Your task to perform on an android device: check battery use Image 0: 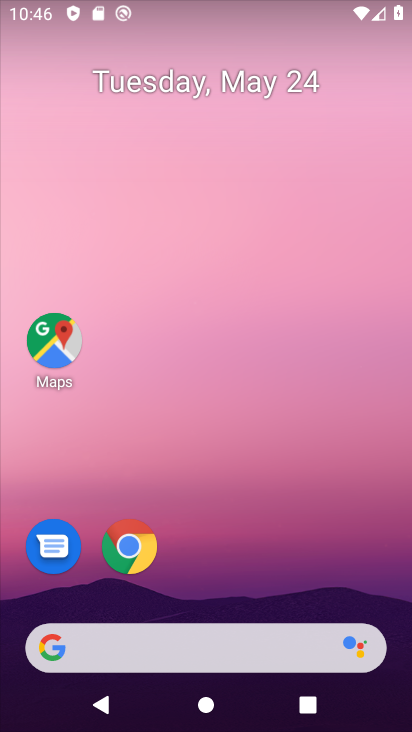
Step 0: click (114, 548)
Your task to perform on an android device: check battery use Image 1: 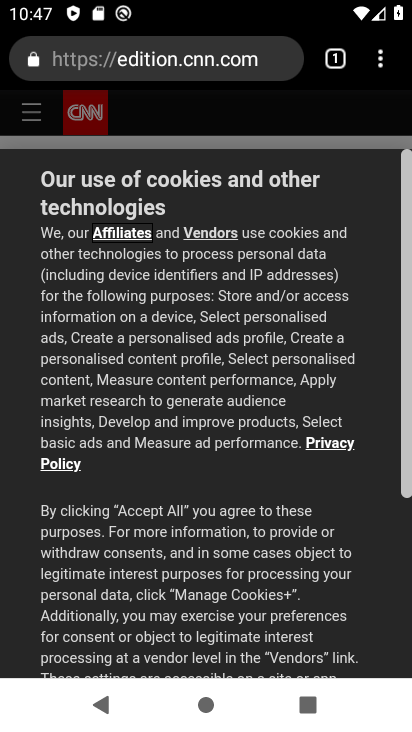
Step 1: press home button
Your task to perform on an android device: check battery use Image 2: 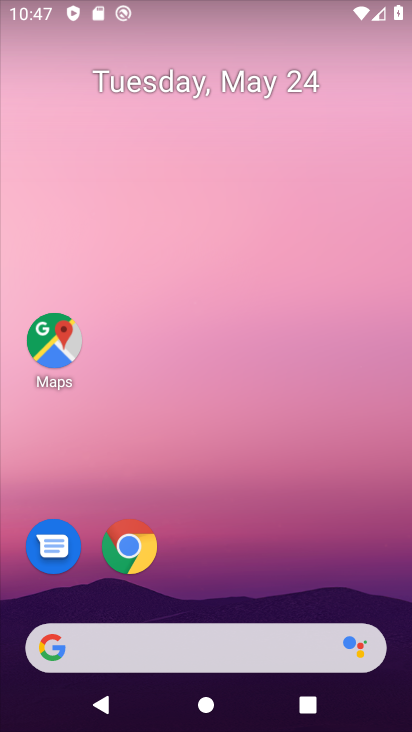
Step 2: drag from (215, 590) to (247, 51)
Your task to perform on an android device: check battery use Image 3: 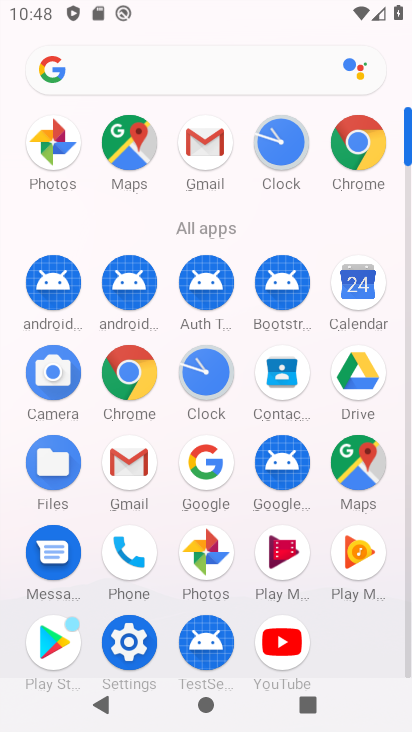
Step 3: click (144, 641)
Your task to perform on an android device: check battery use Image 4: 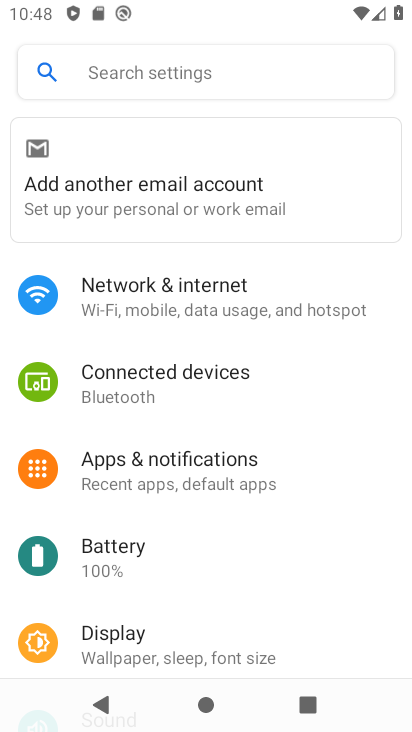
Step 4: click (152, 561)
Your task to perform on an android device: check battery use Image 5: 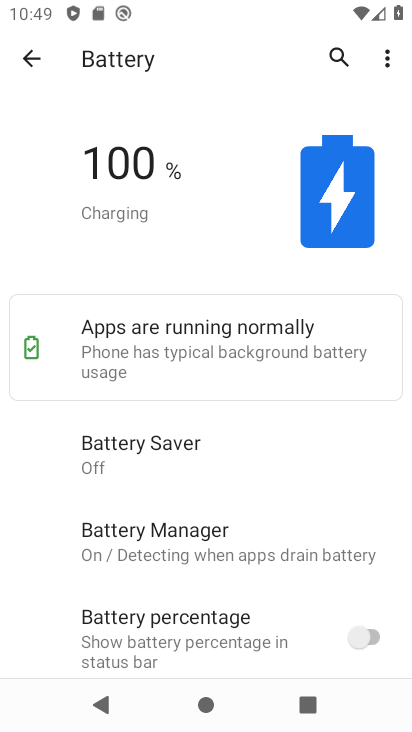
Step 5: click (387, 54)
Your task to perform on an android device: check battery use Image 6: 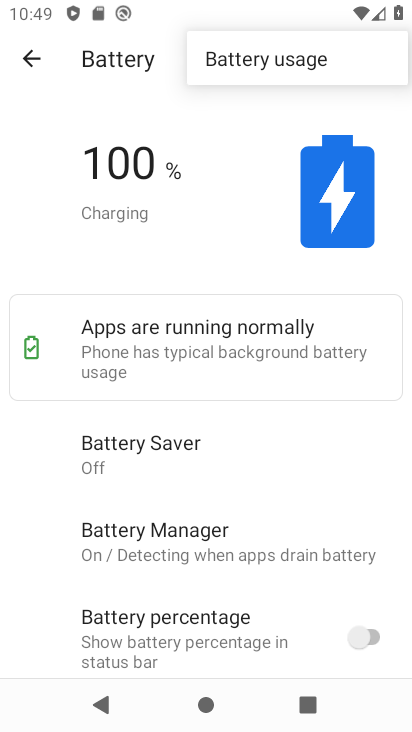
Step 6: drag from (219, 647) to (228, 360)
Your task to perform on an android device: check battery use Image 7: 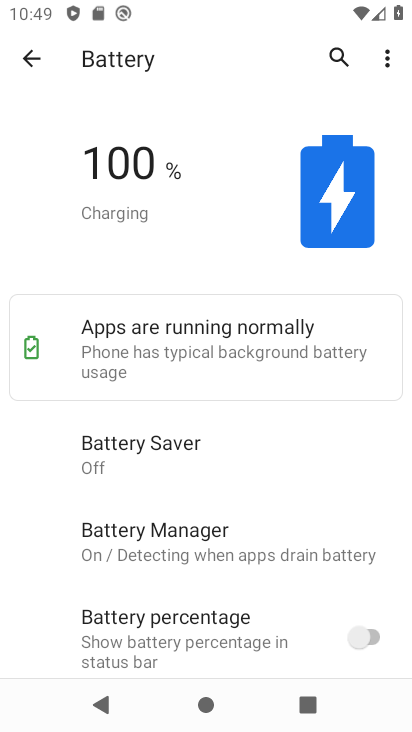
Step 7: click (386, 57)
Your task to perform on an android device: check battery use Image 8: 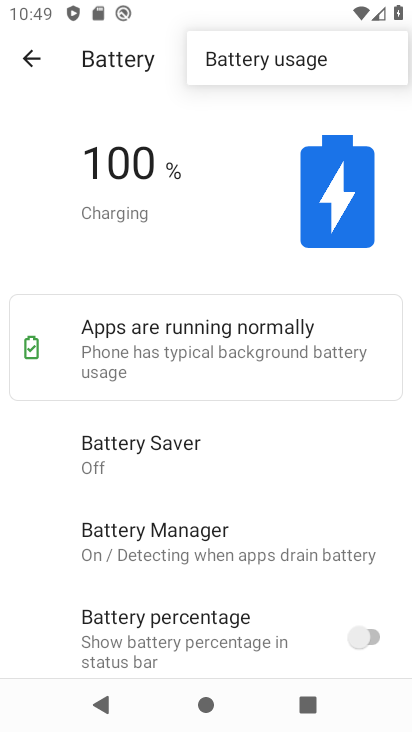
Step 8: click (336, 62)
Your task to perform on an android device: check battery use Image 9: 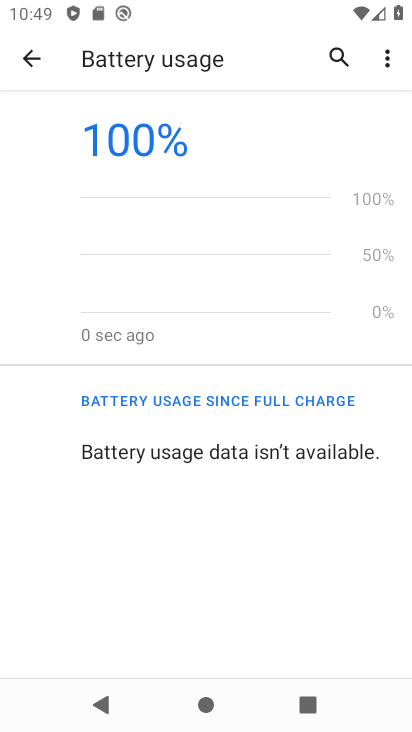
Step 9: task complete